Your task to perform on an android device: Go to privacy settings Image 0: 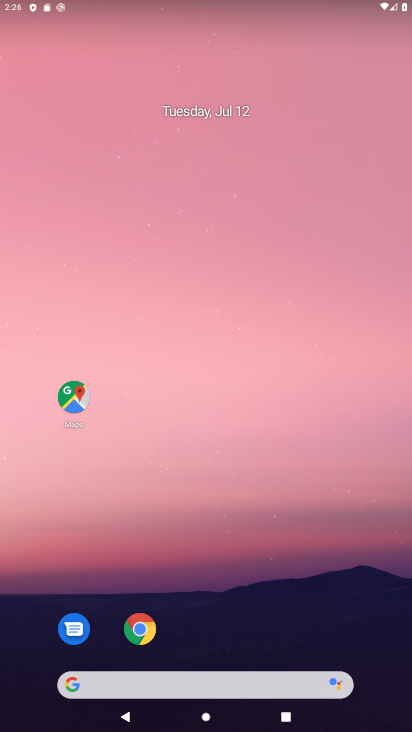
Step 0: drag from (214, 523) to (232, 167)
Your task to perform on an android device: Go to privacy settings Image 1: 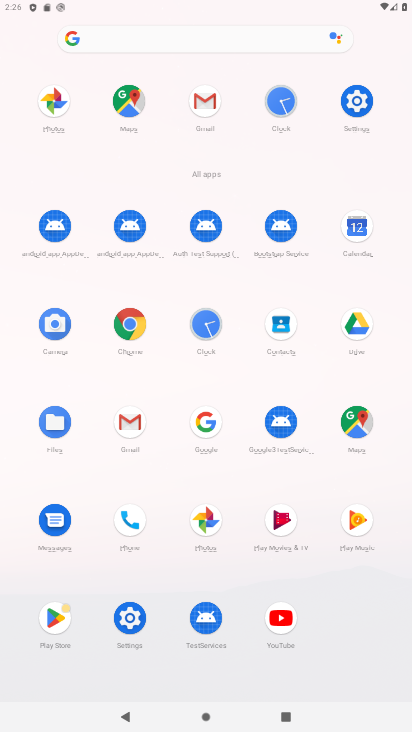
Step 1: click (358, 95)
Your task to perform on an android device: Go to privacy settings Image 2: 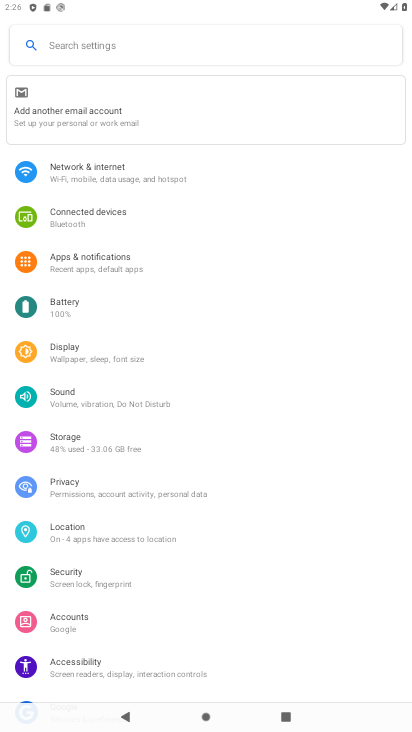
Step 2: click (114, 488)
Your task to perform on an android device: Go to privacy settings Image 3: 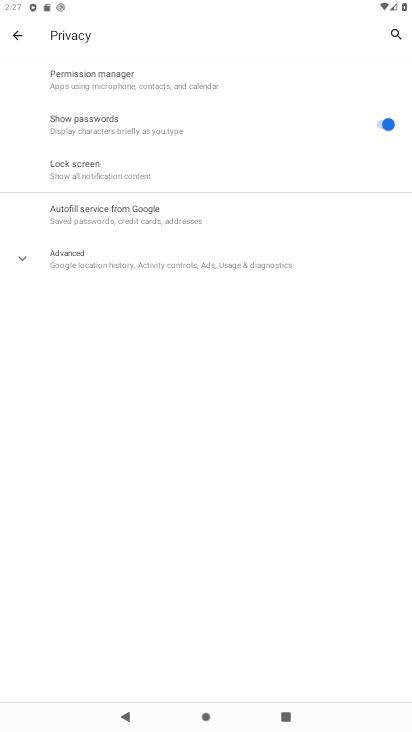
Step 3: task complete